Your task to perform on an android device: Open Yahoo.com Image 0: 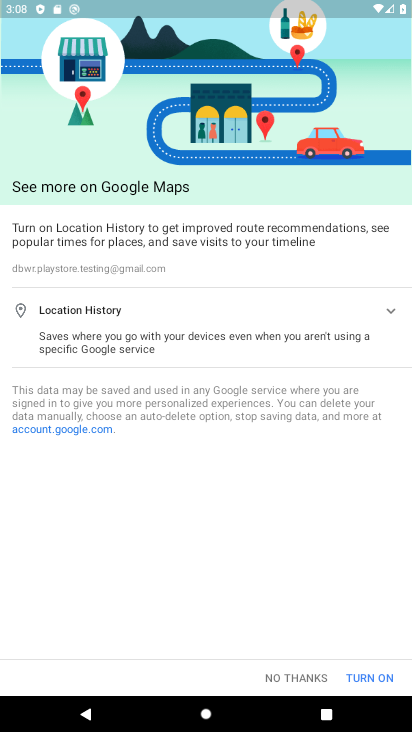
Step 0: press home button
Your task to perform on an android device: Open Yahoo.com Image 1: 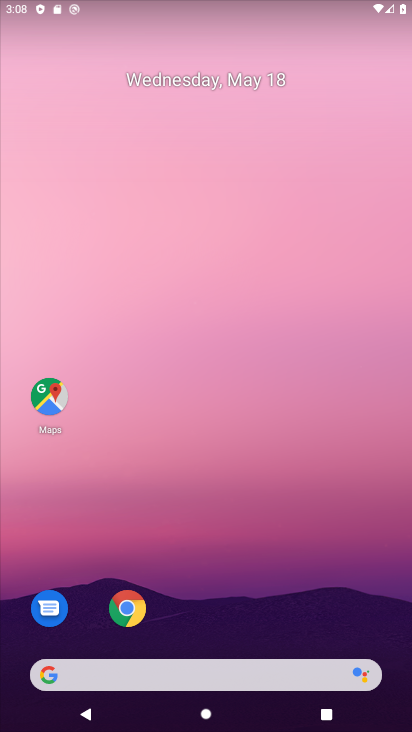
Step 1: click (131, 610)
Your task to perform on an android device: Open Yahoo.com Image 2: 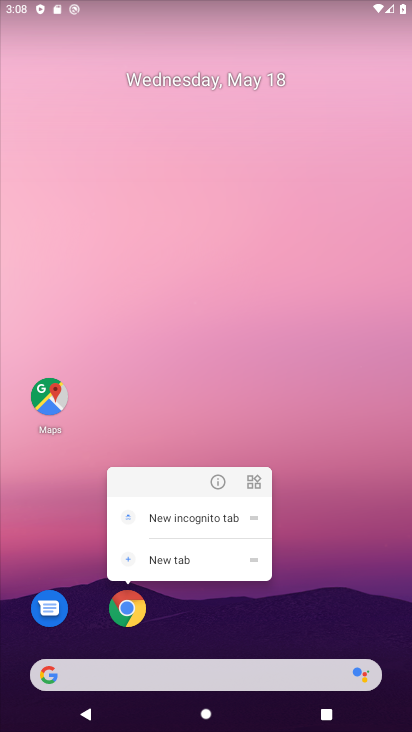
Step 2: click (128, 611)
Your task to perform on an android device: Open Yahoo.com Image 3: 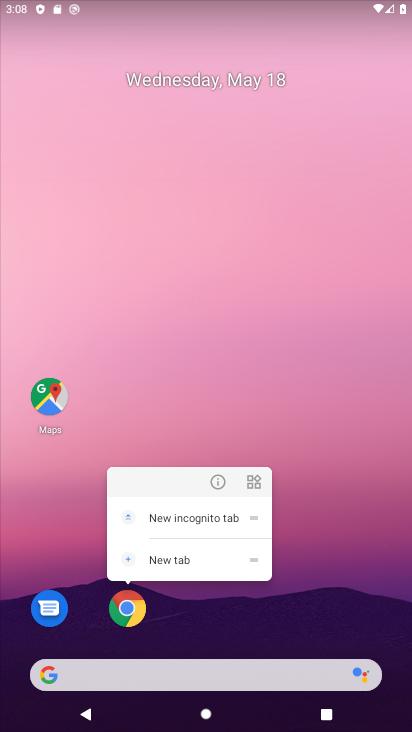
Step 3: click (127, 612)
Your task to perform on an android device: Open Yahoo.com Image 4: 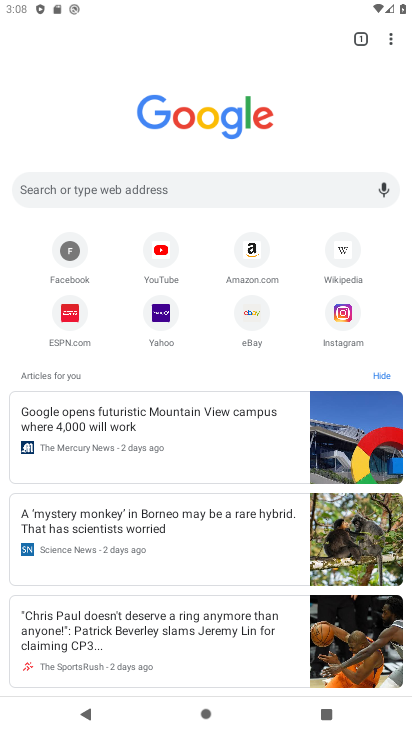
Step 4: click (165, 312)
Your task to perform on an android device: Open Yahoo.com Image 5: 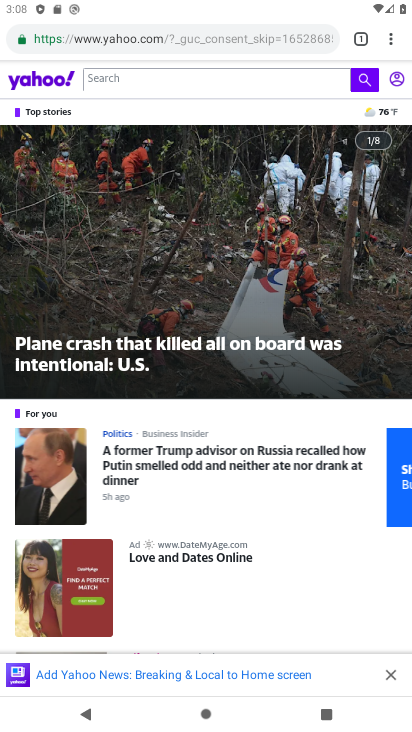
Step 5: task complete